Your task to perform on an android device: Open privacy settings Image 0: 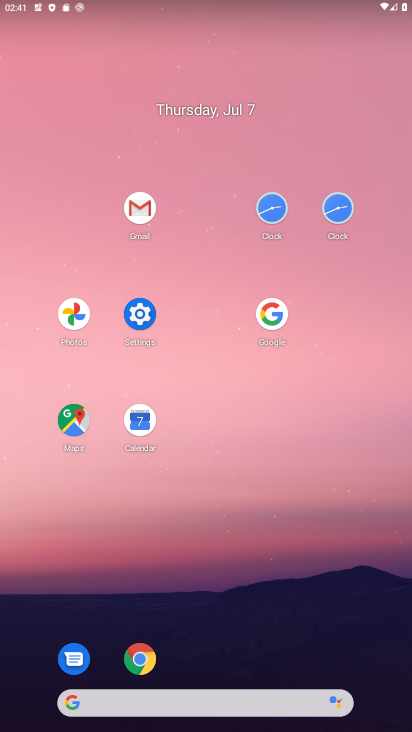
Step 0: click (133, 318)
Your task to perform on an android device: Open privacy settings Image 1: 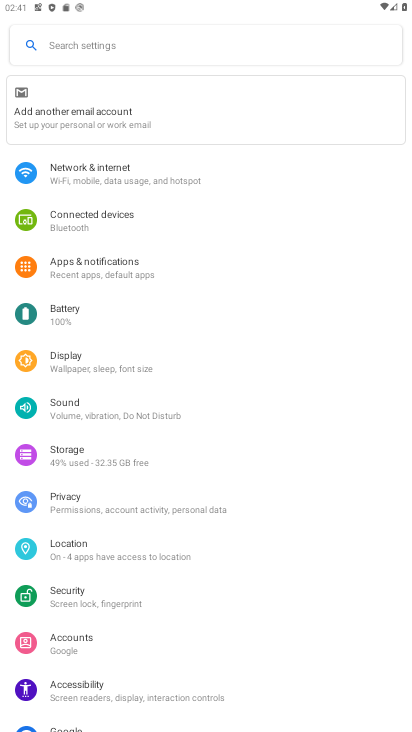
Step 1: click (121, 510)
Your task to perform on an android device: Open privacy settings Image 2: 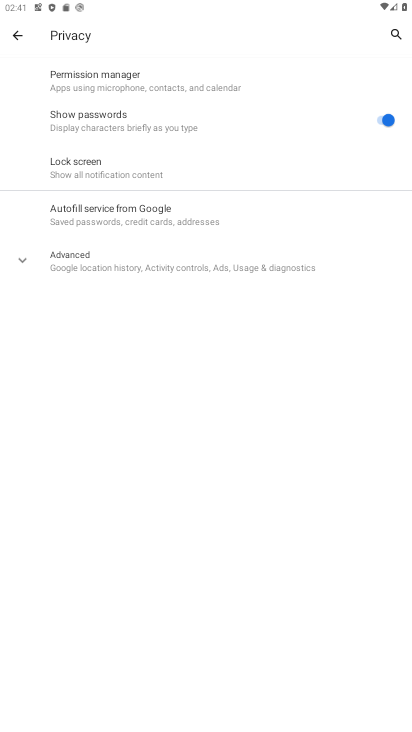
Step 2: task complete